Your task to perform on an android device: When is my next meeting? Image 0: 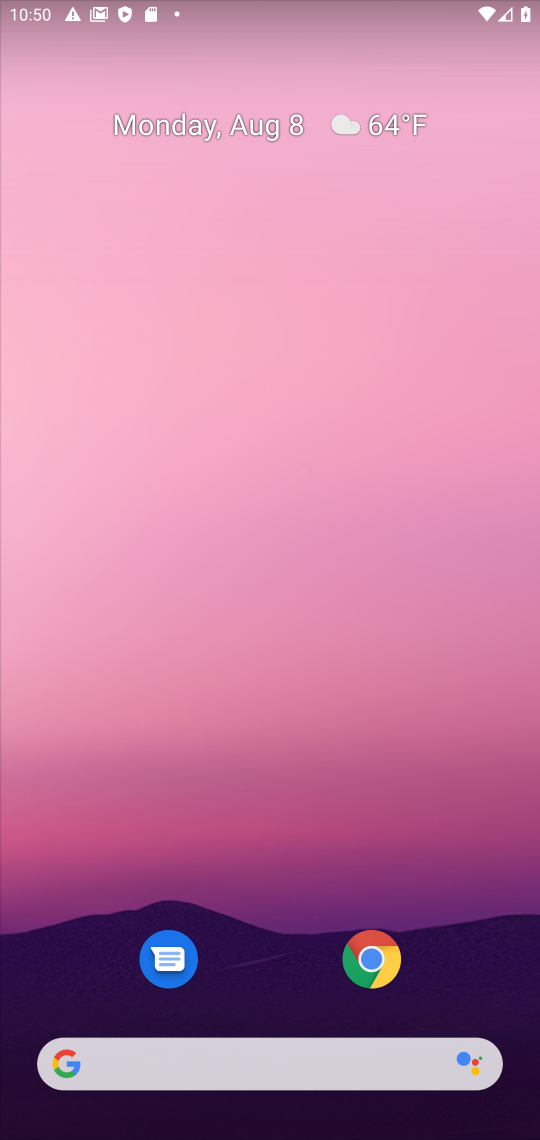
Step 0: drag from (273, 1000) to (136, 179)
Your task to perform on an android device: When is my next meeting? Image 1: 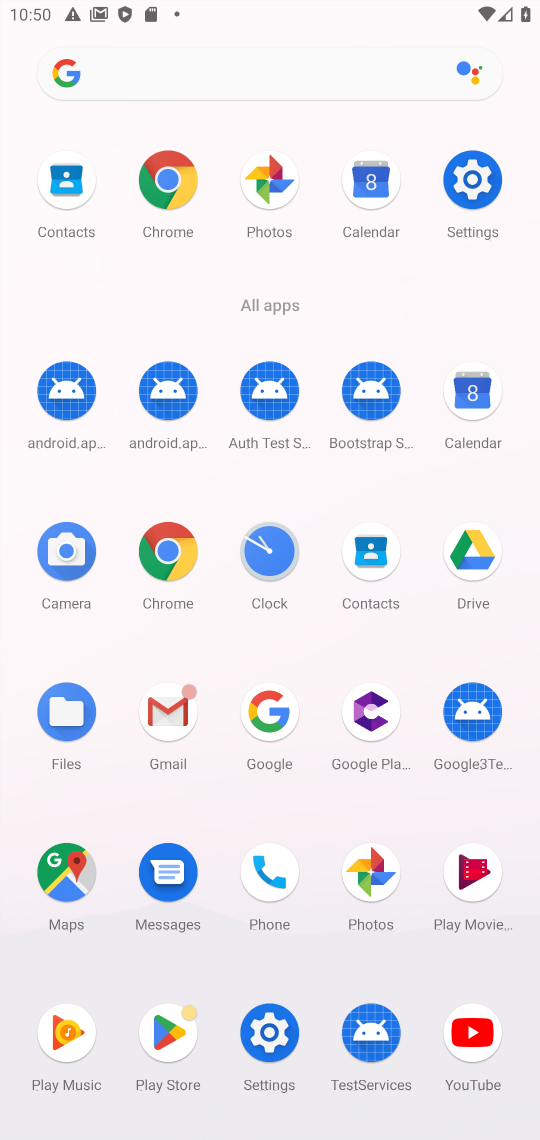
Step 1: click (469, 423)
Your task to perform on an android device: When is my next meeting? Image 2: 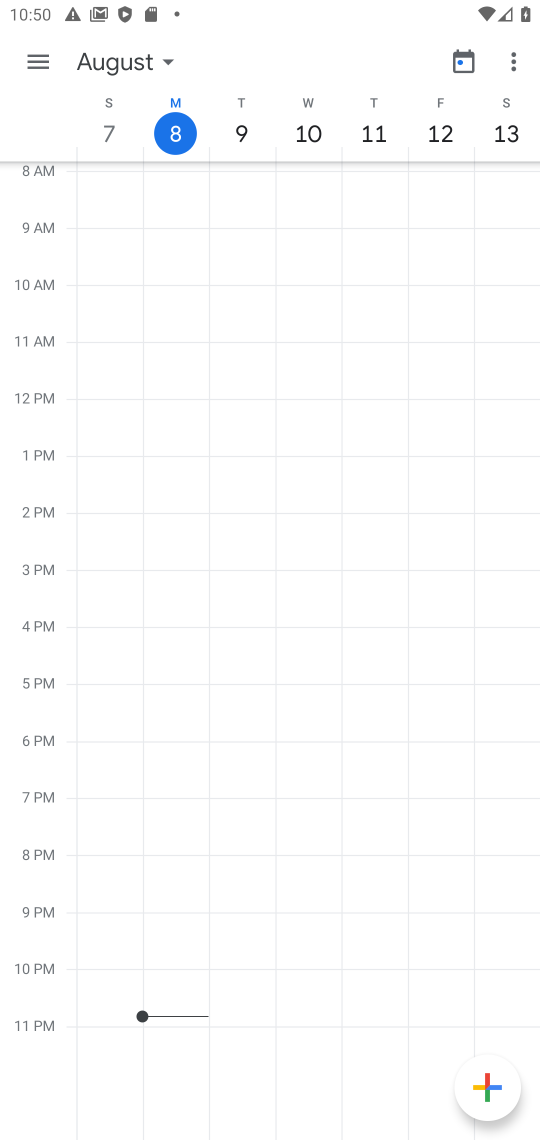
Step 2: click (32, 62)
Your task to perform on an android device: When is my next meeting? Image 3: 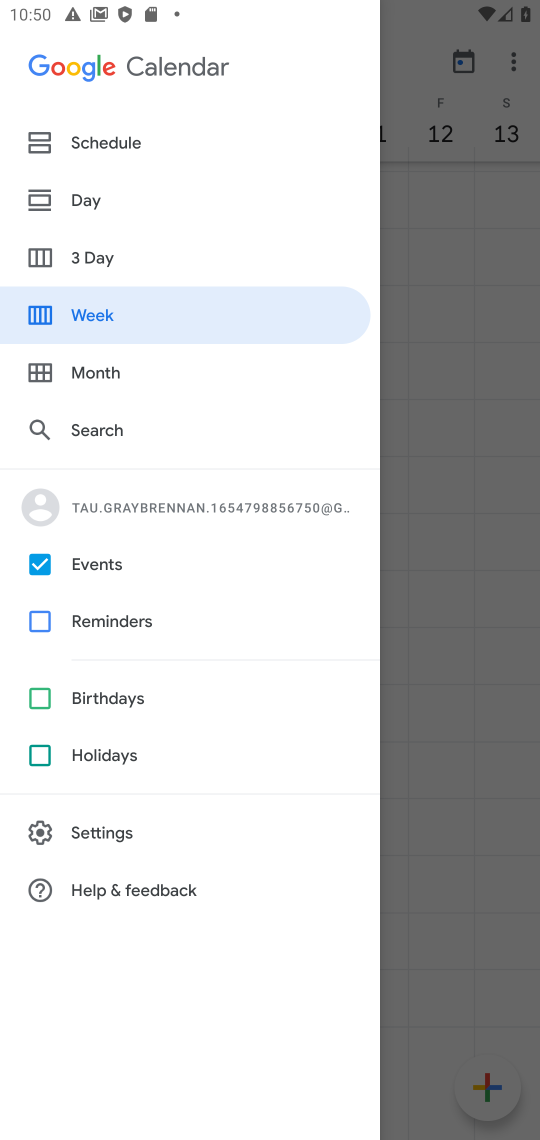
Step 3: click (98, 128)
Your task to perform on an android device: When is my next meeting? Image 4: 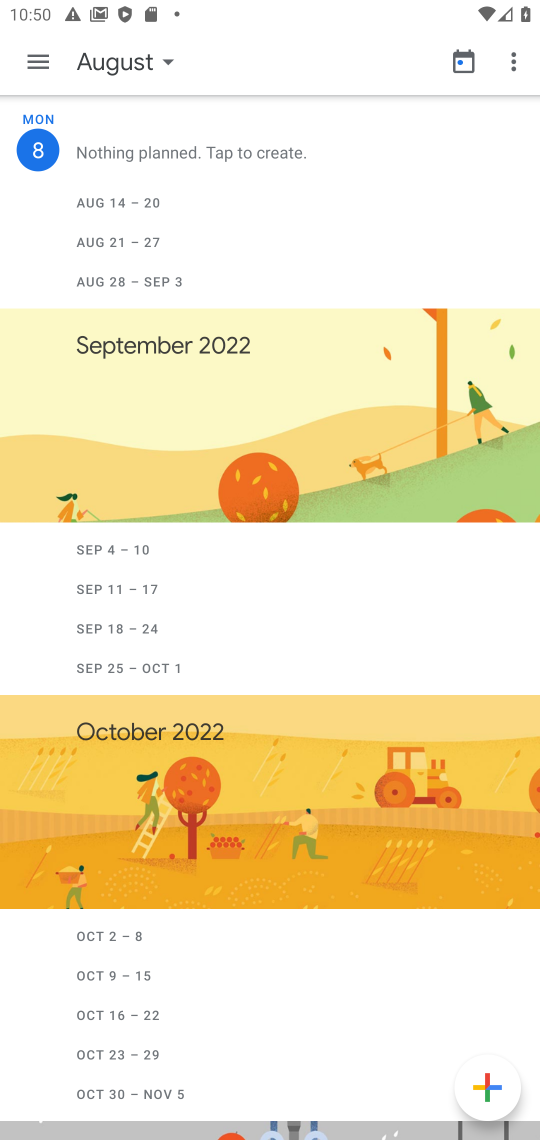
Step 4: task complete